Your task to perform on an android device: move an email to a new category in the gmail app Image 0: 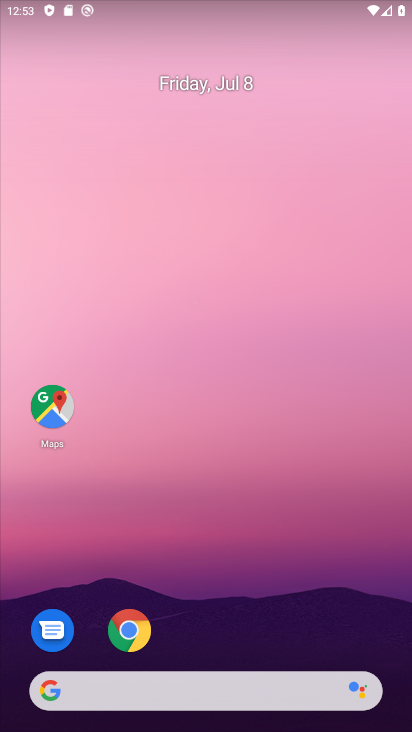
Step 0: drag from (220, 597) to (297, 116)
Your task to perform on an android device: move an email to a new category in the gmail app Image 1: 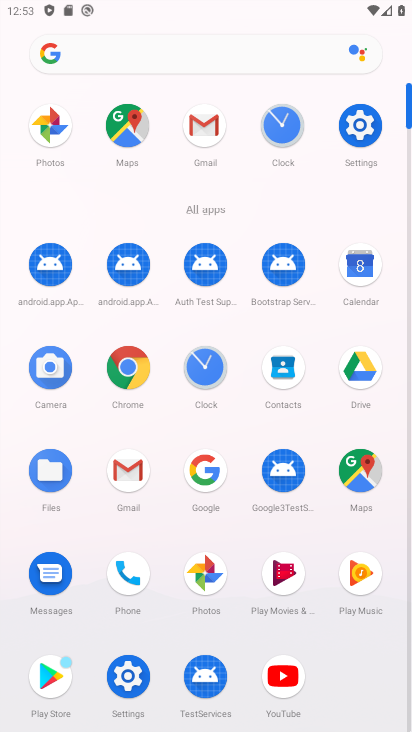
Step 1: click (141, 481)
Your task to perform on an android device: move an email to a new category in the gmail app Image 2: 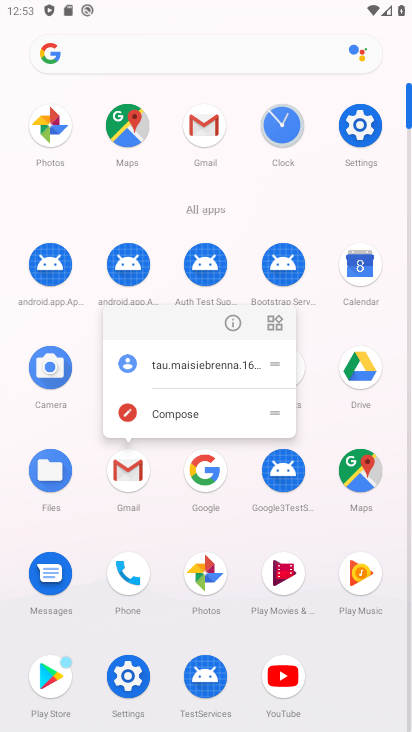
Step 2: click (138, 481)
Your task to perform on an android device: move an email to a new category in the gmail app Image 3: 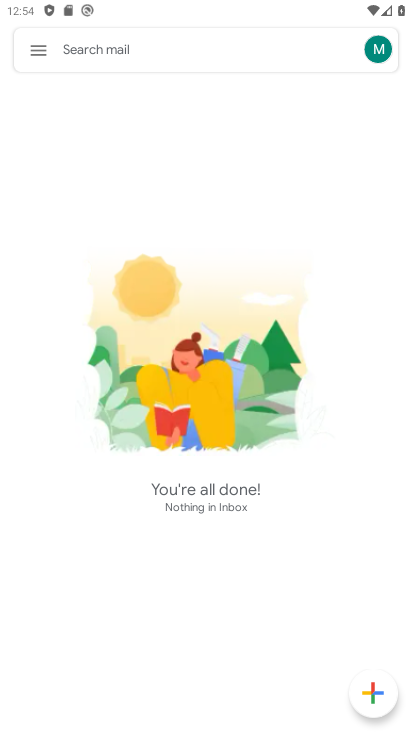
Step 3: click (39, 54)
Your task to perform on an android device: move an email to a new category in the gmail app Image 4: 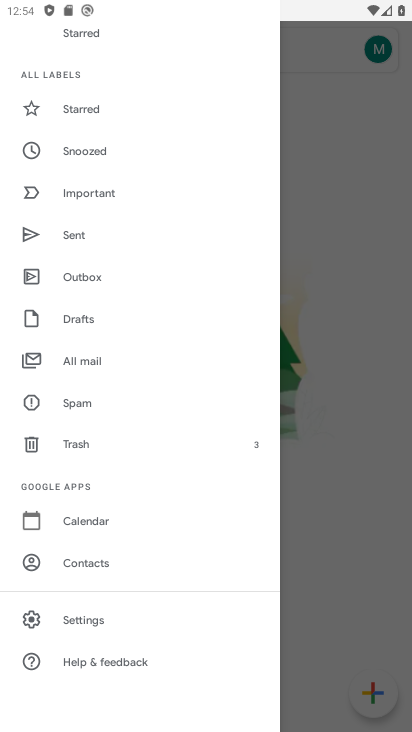
Step 4: click (114, 360)
Your task to perform on an android device: move an email to a new category in the gmail app Image 5: 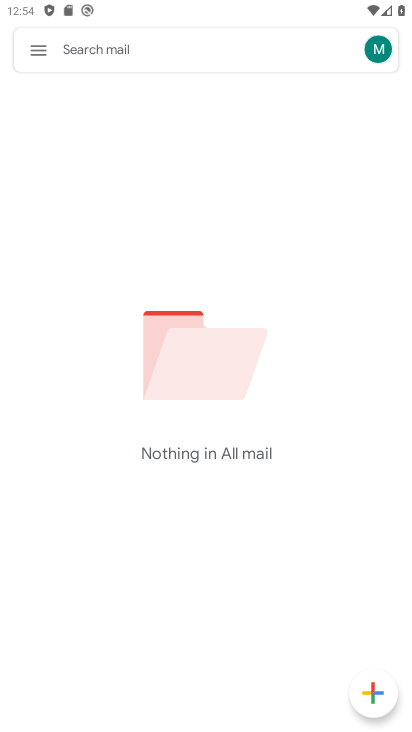
Step 5: task complete